Your task to perform on an android device: Open Reddit.com Image 0: 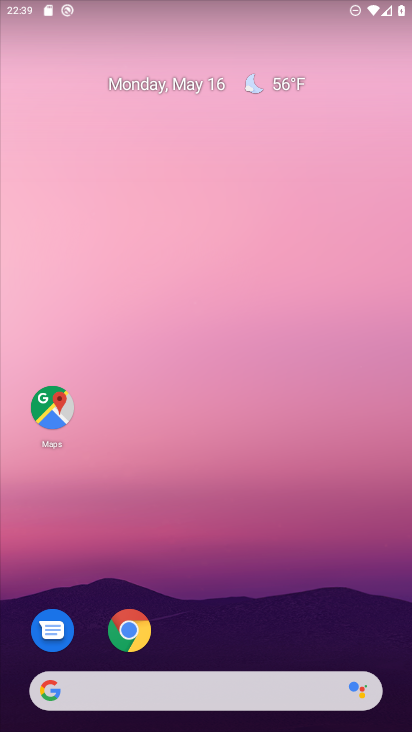
Step 0: click (138, 629)
Your task to perform on an android device: Open Reddit.com Image 1: 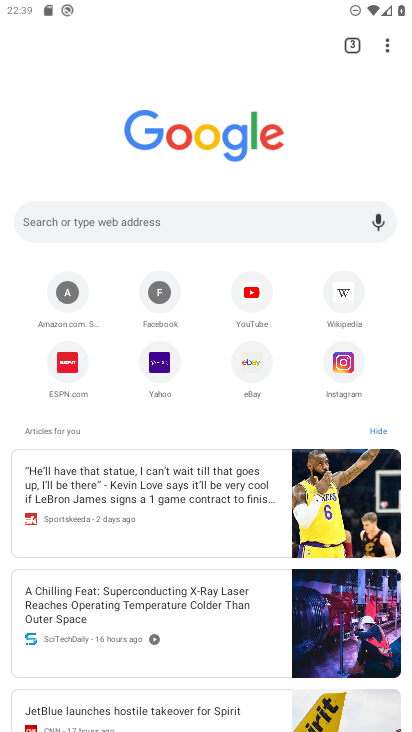
Step 1: click (206, 221)
Your task to perform on an android device: Open Reddit.com Image 2: 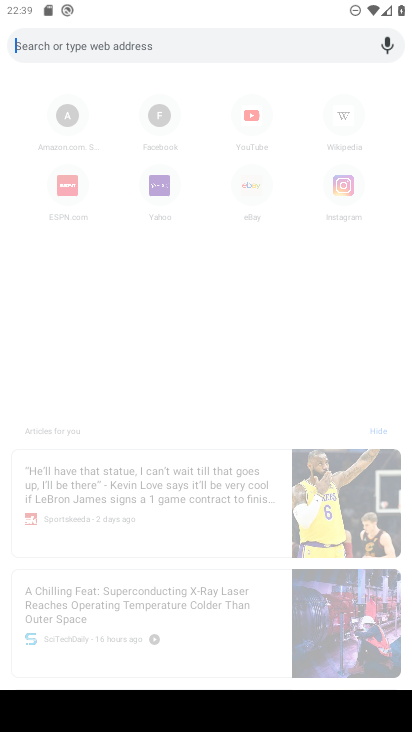
Step 2: type "Reddit.com"
Your task to perform on an android device: Open Reddit.com Image 3: 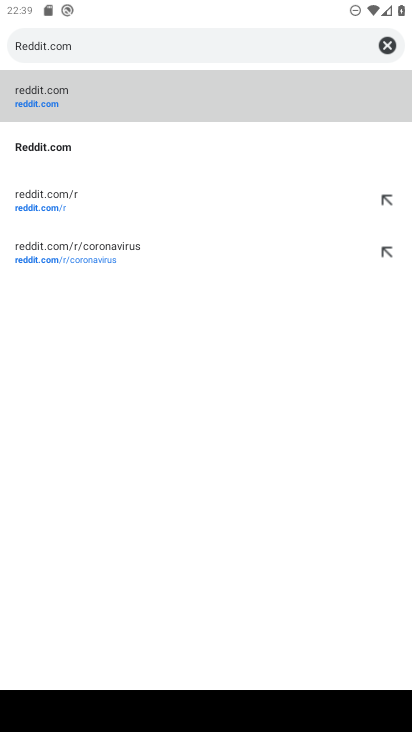
Step 3: click (176, 93)
Your task to perform on an android device: Open Reddit.com Image 4: 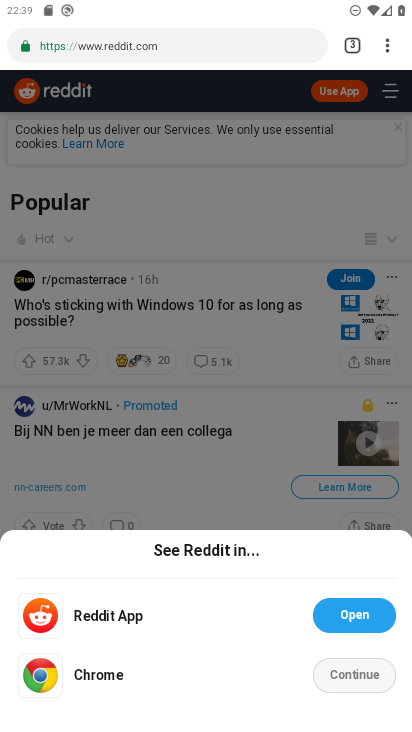
Step 4: task complete